Your task to perform on an android device: change notification settings in the gmail app Image 0: 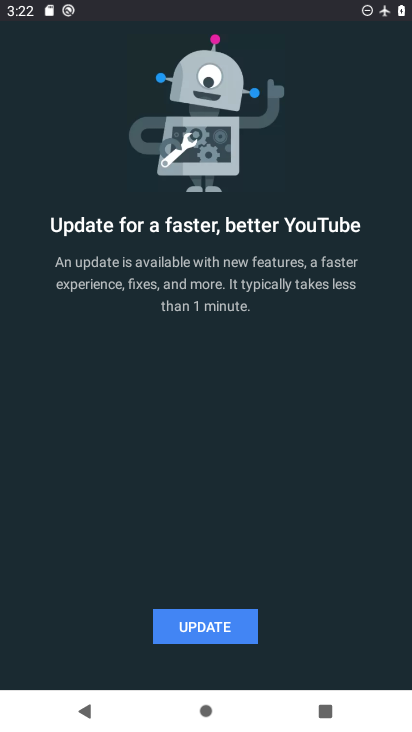
Step 0: press back button
Your task to perform on an android device: change notification settings in the gmail app Image 1: 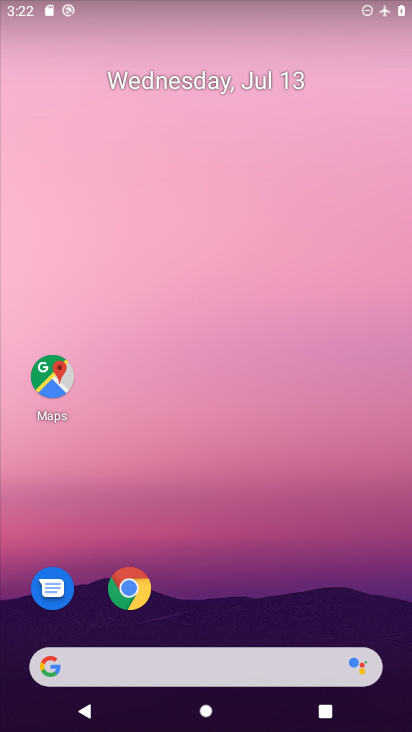
Step 1: drag from (187, 621) to (298, 125)
Your task to perform on an android device: change notification settings in the gmail app Image 2: 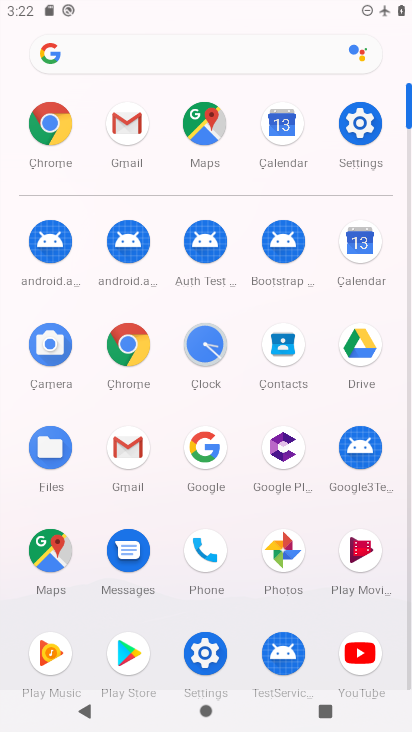
Step 2: click (120, 443)
Your task to perform on an android device: change notification settings in the gmail app Image 3: 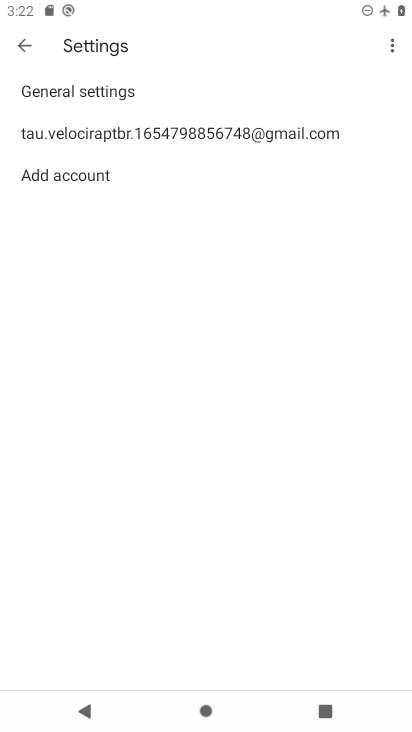
Step 3: click (61, 96)
Your task to perform on an android device: change notification settings in the gmail app Image 4: 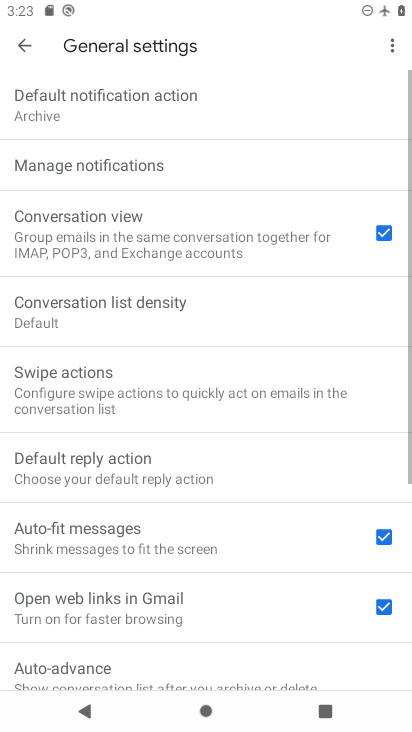
Step 4: click (96, 178)
Your task to perform on an android device: change notification settings in the gmail app Image 5: 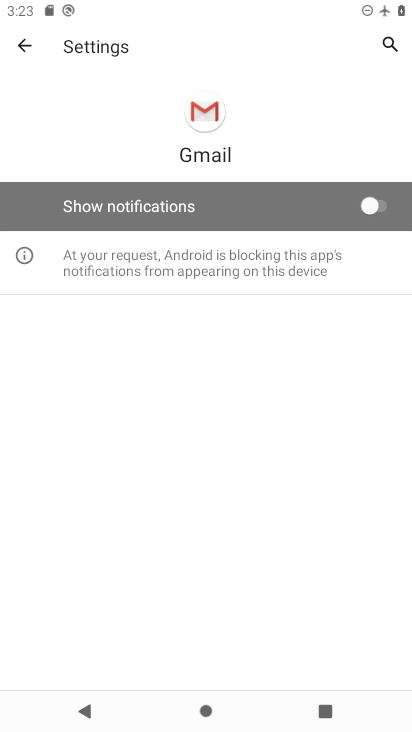
Step 5: click (377, 204)
Your task to perform on an android device: change notification settings in the gmail app Image 6: 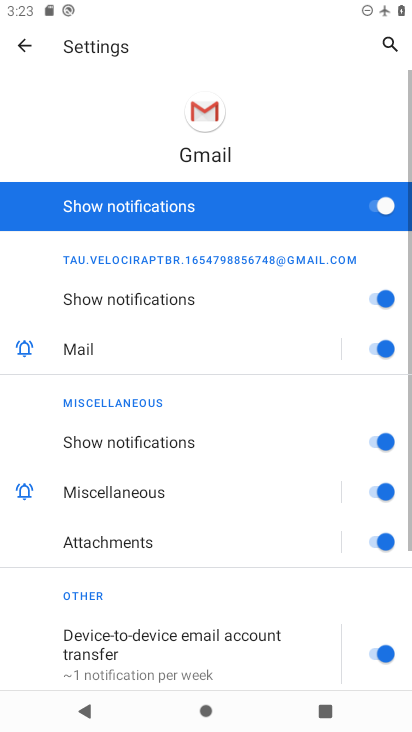
Step 6: task complete